Your task to perform on an android device: toggle improve location accuracy Image 0: 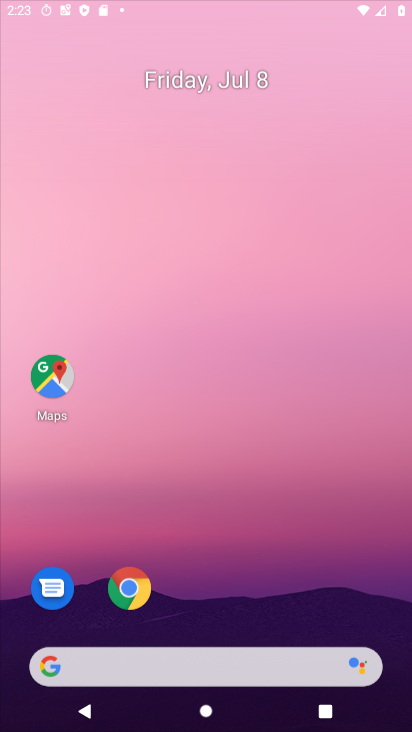
Step 0: press home button
Your task to perform on an android device: toggle improve location accuracy Image 1: 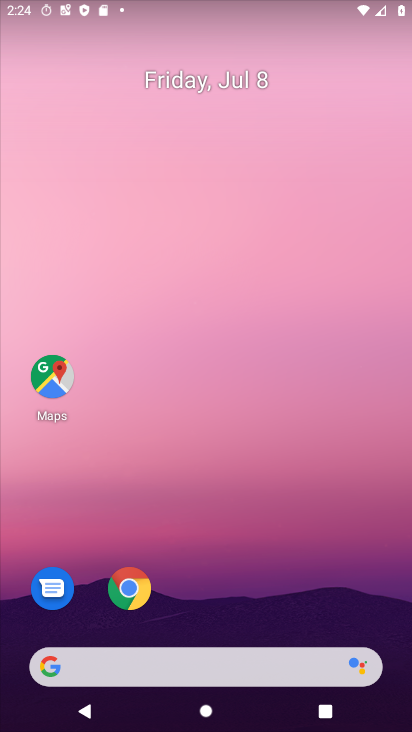
Step 1: drag from (216, 625) to (207, 190)
Your task to perform on an android device: toggle improve location accuracy Image 2: 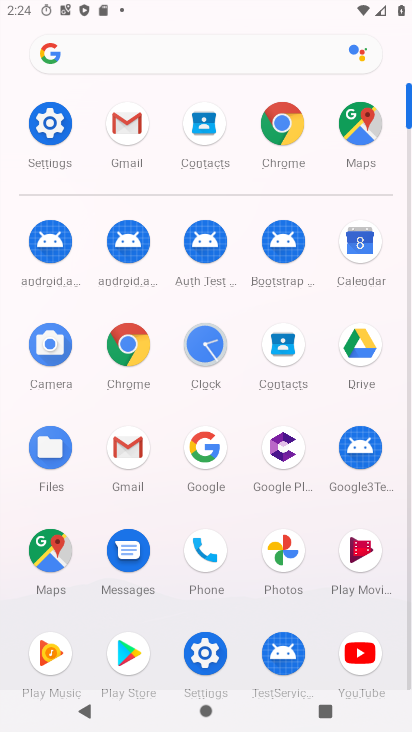
Step 2: click (45, 119)
Your task to perform on an android device: toggle improve location accuracy Image 3: 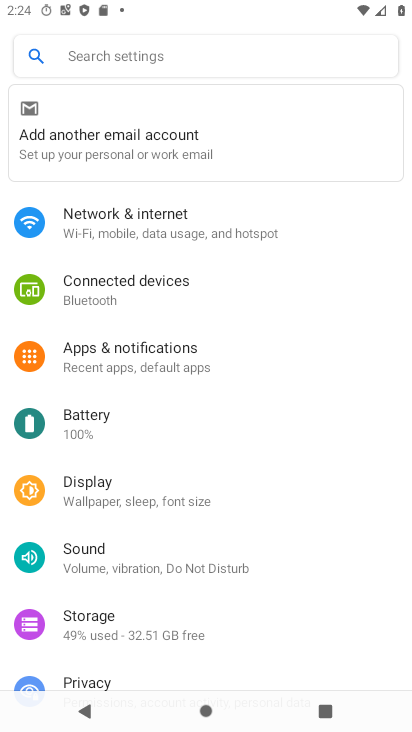
Step 3: drag from (347, 601) to (326, 343)
Your task to perform on an android device: toggle improve location accuracy Image 4: 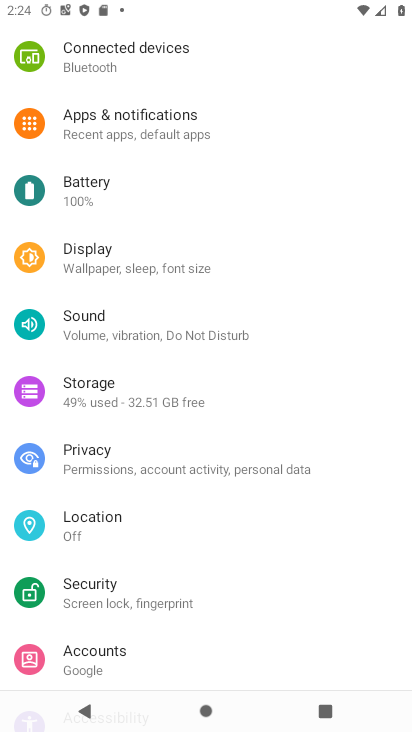
Step 4: click (72, 527)
Your task to perform on an android device: toggle improve location accuracy Image 5: 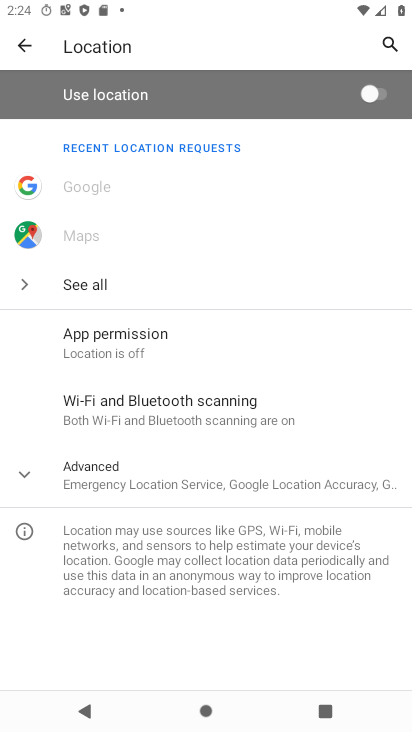
Step 5: click (102, 466)
Your task to perform on an android device: toggle improve location accuracy Image 6: 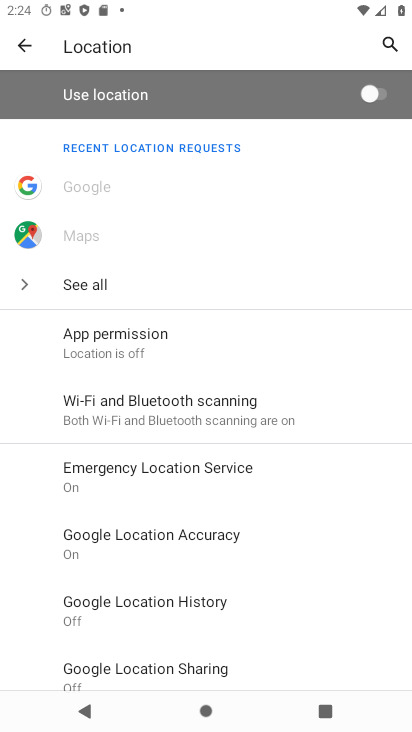
Step 6: click (164, 536)
Your task to perform on an android device: toggle improve location accuracy Image 7: 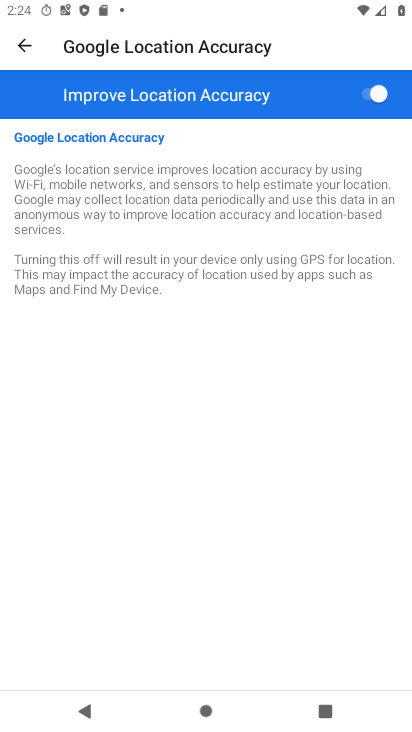
Step 7: click (378, 93)
Your task to perform on an android device: toggle improve location accuracy Image 8: 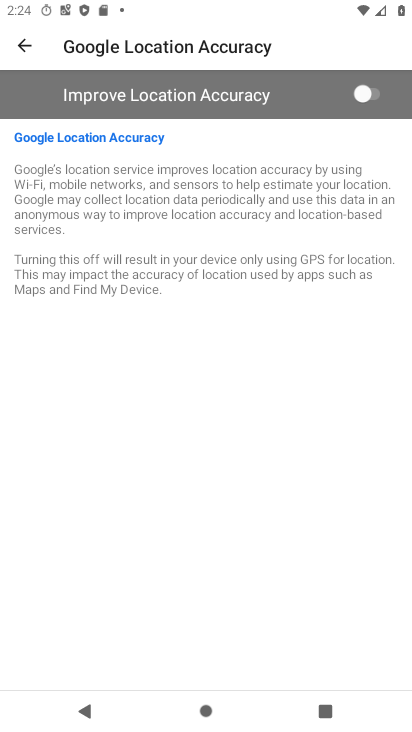
Step 8: task complete